Your task to perform on an android device: turn off location Image 0: 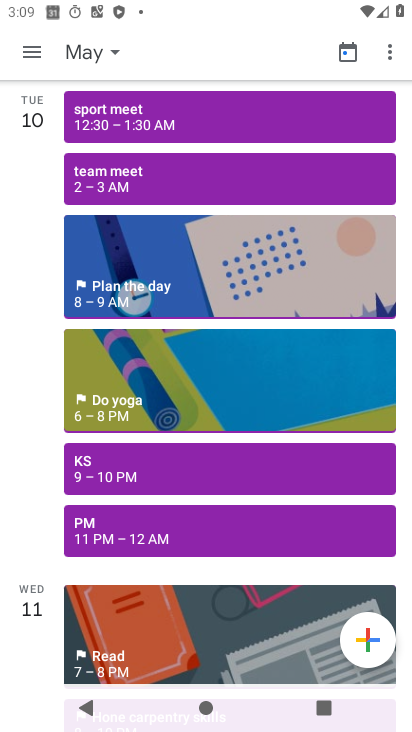
Step 0: drag from (274, 603) to (293, 193)
Your task to perform on an android device: turn off location Image 1: 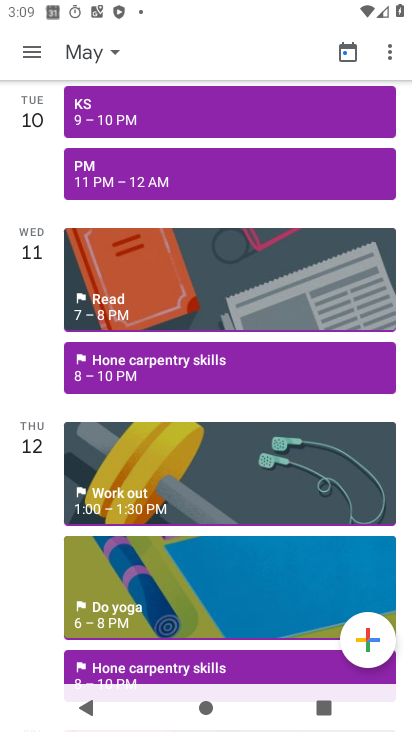
Step 1: press home button
Your task to perform on an android device: turn off location Image 2: 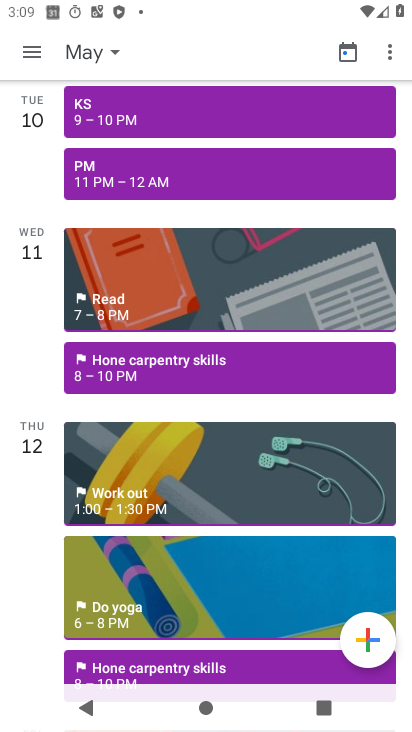
Step 2: press home button
Your task to perform on an android device: turn off location Image 3: 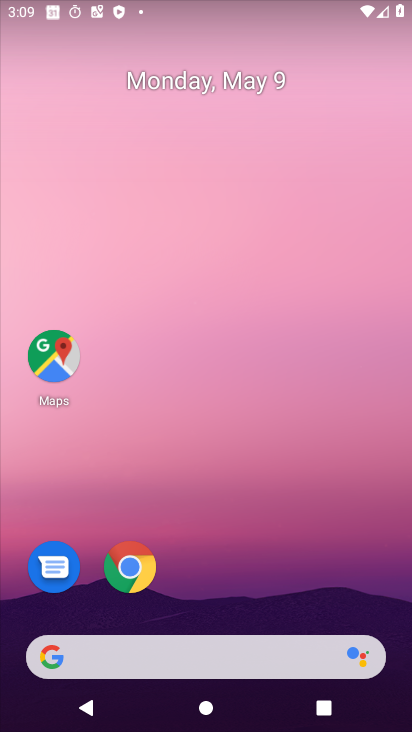
Step 3: drag from (250, 581) to (272, 40)
Your task to perform on an android device: turn off location Image 4: 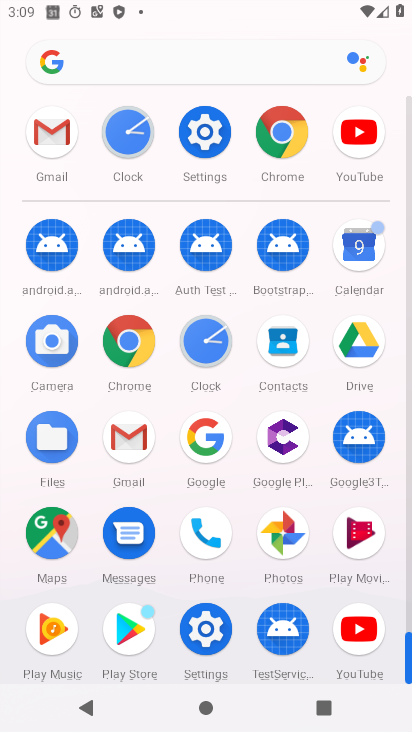
Step 4: drag from (234, 552) to (264, 313)
Your task to perform on an android device: turn off location Image 5: 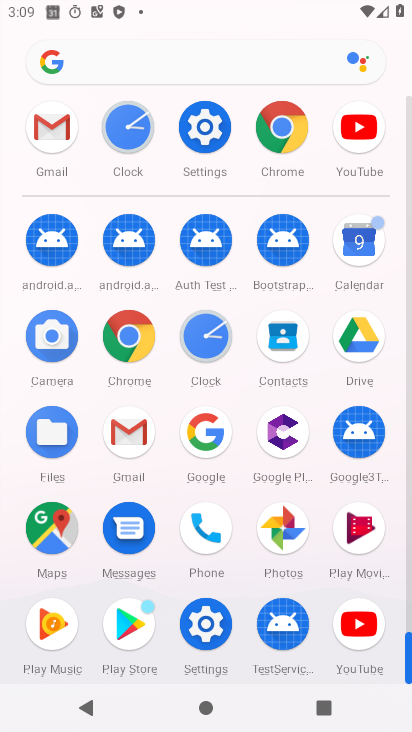
Step 5: click (209, 627)
Your task to perform on an android device: turn off location Image 6: 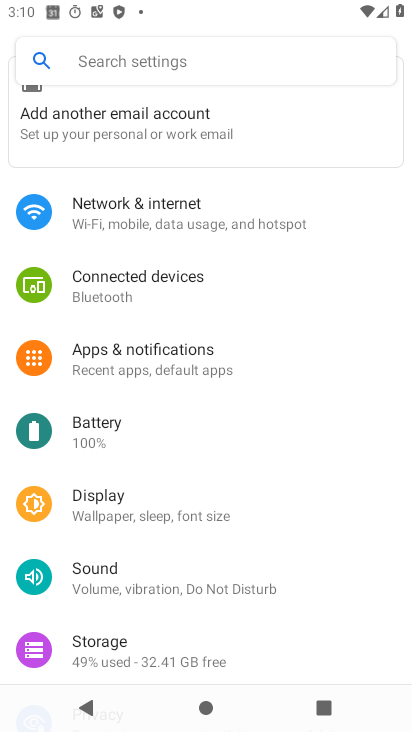
Step 6: drag from (268, 640) to (269, 314)
Your task to perform on an android device: turn off location Image 7: 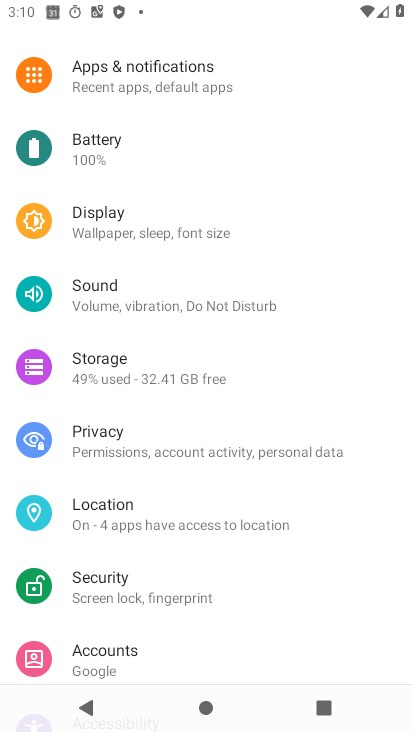
Step 7: click (148, 517)
Your task to perform on an android device: turn off location Image 8: 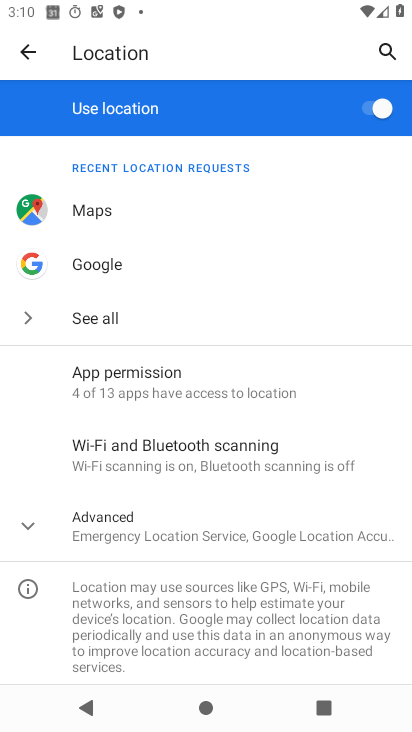
Step 8: click (369, 107)
Your task to perform on an android device: turn off location Image 9: 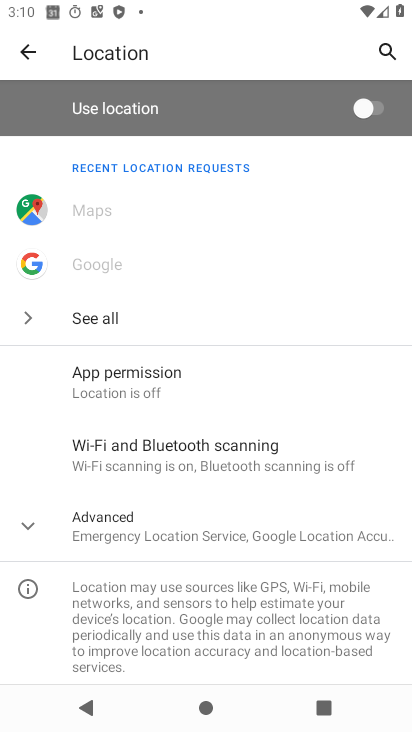
Step 9: task complete